Your task to perform on an android device: Empty the shopping cart on amazon. Search for "asus rog" on amazon, select the first entry, and add it to the cart. Image 0: 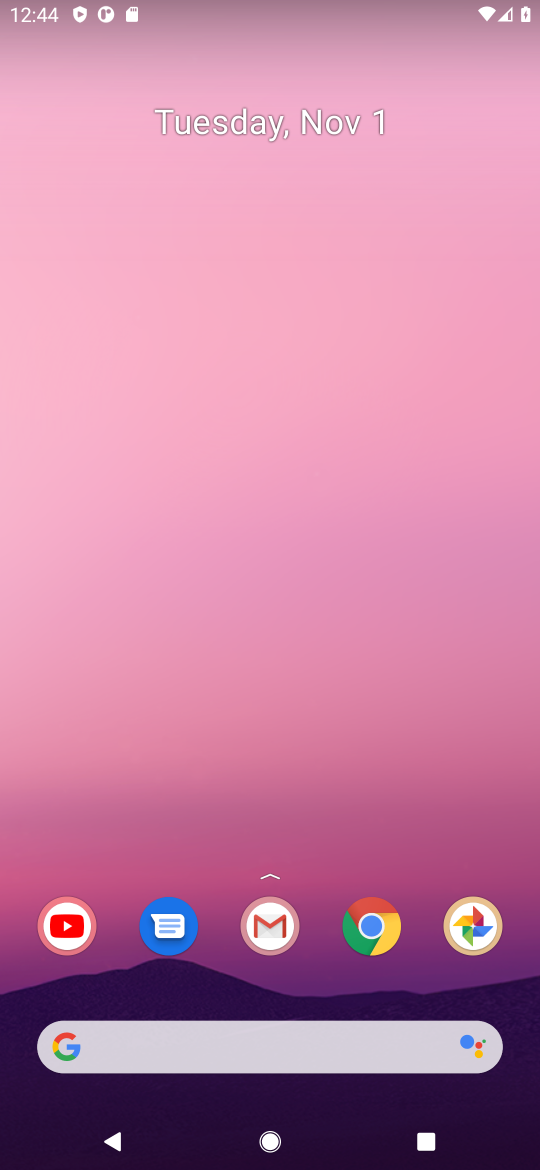
Step 0: click (380, 940)
Your task to perform on an android device: Empty the shopping cart on amazon. Search for "asus rog" on amazon, select the first entry, and add it to the cart. Image 1: 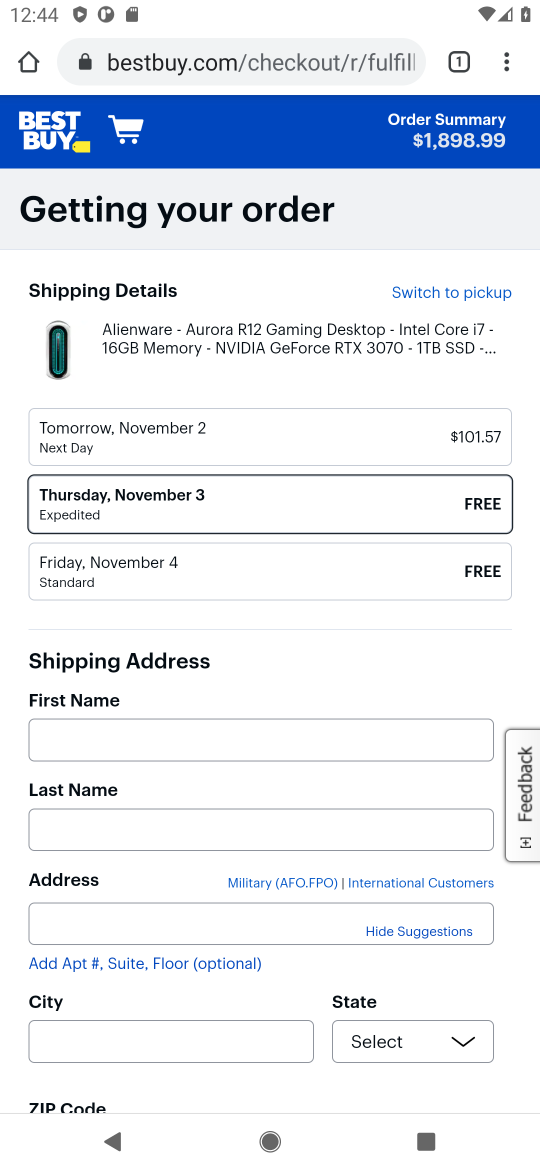
Step 1: click (172, 68)
Your task to perform on an android device: Empty the shopping cart on amazon. Search for "asus rog" on amazon, select the first entry, and add it to the cart. Image 2: 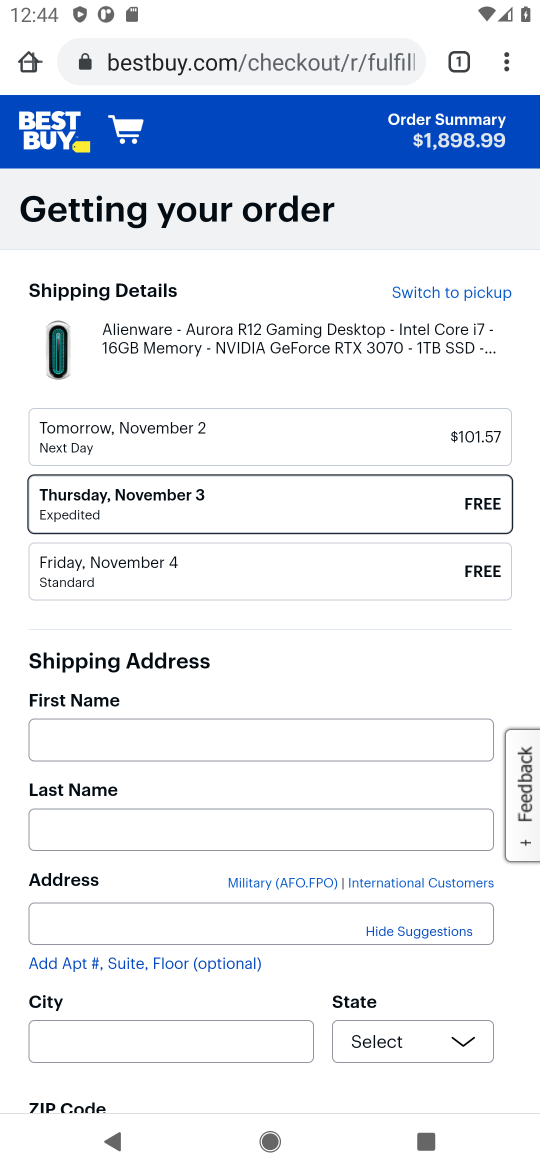
Step 2: click (162, 38)
Your task to perform on an android device: Empty the shopping cart on amazon. Search for "asus rog" on amazon, select the first entry, and add it to the cart. Image 3: 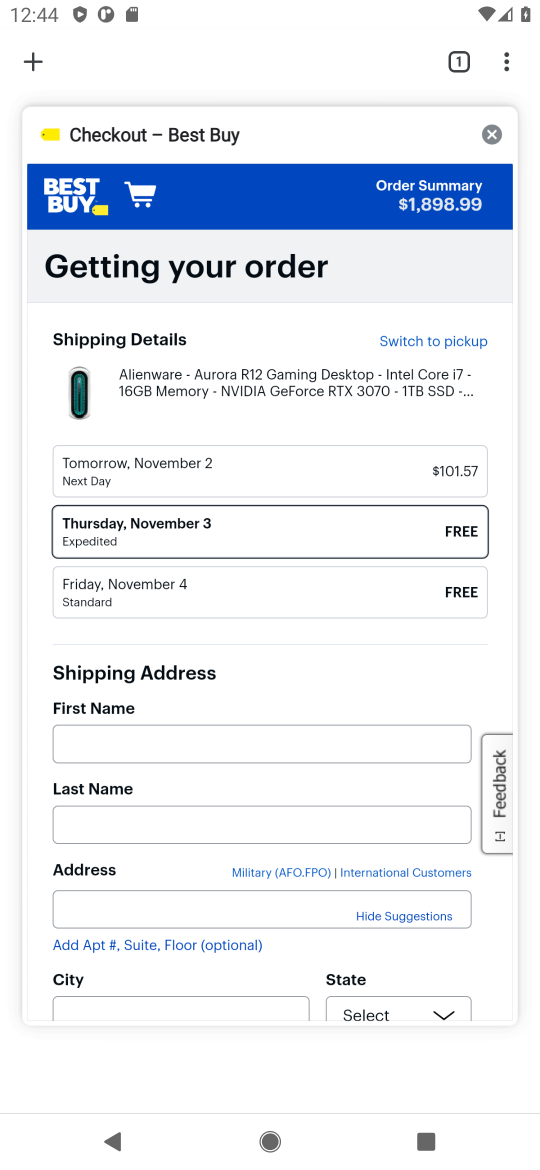
Step 3: click (149, 107)
Your task to perform on an android device: Empty the shopping cart on amazon. Search for "asus rog" on amazon, select the first entry, and add it to the cart. Image 4: 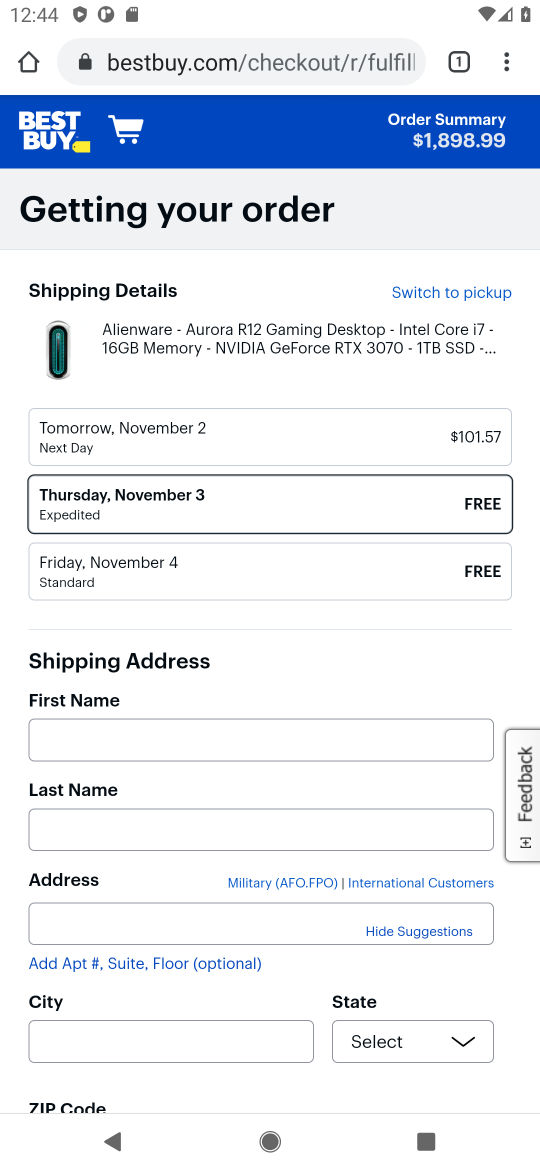
Step 4: click (147, 80)
Your task to perform on an android device: Empty the shopping cart on amazon. Search for "asus rog" on amazon, select the first entry, and add it to the cart. Image 5: 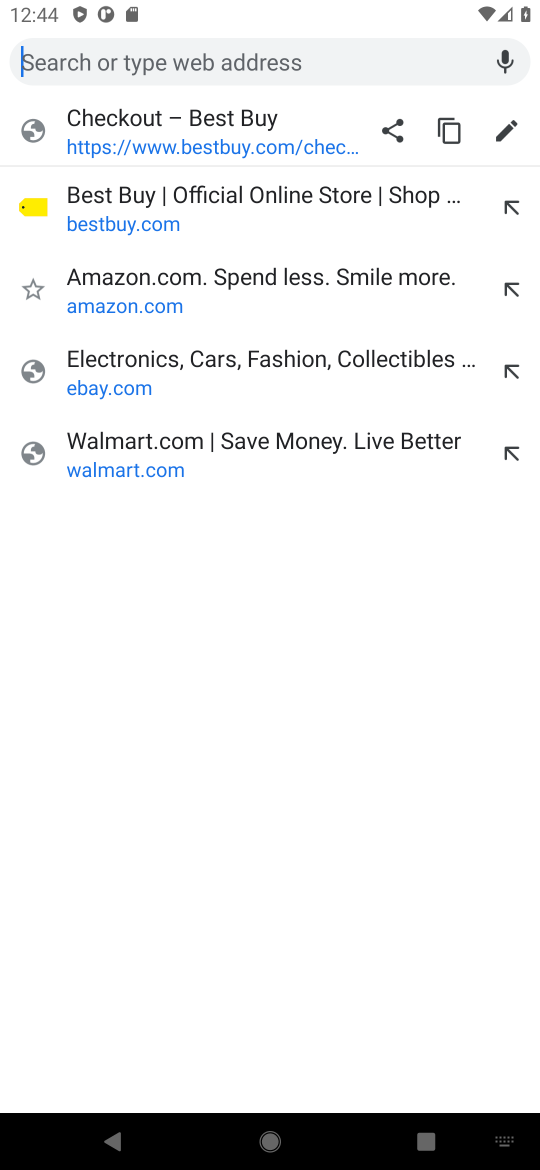
Step 5: type "amazon"
Your task to perform on an android device: Empty the shopping cart on amazon. Search for "asus rog" on amazon, select the first entry, and add it to the cart. Image 6: 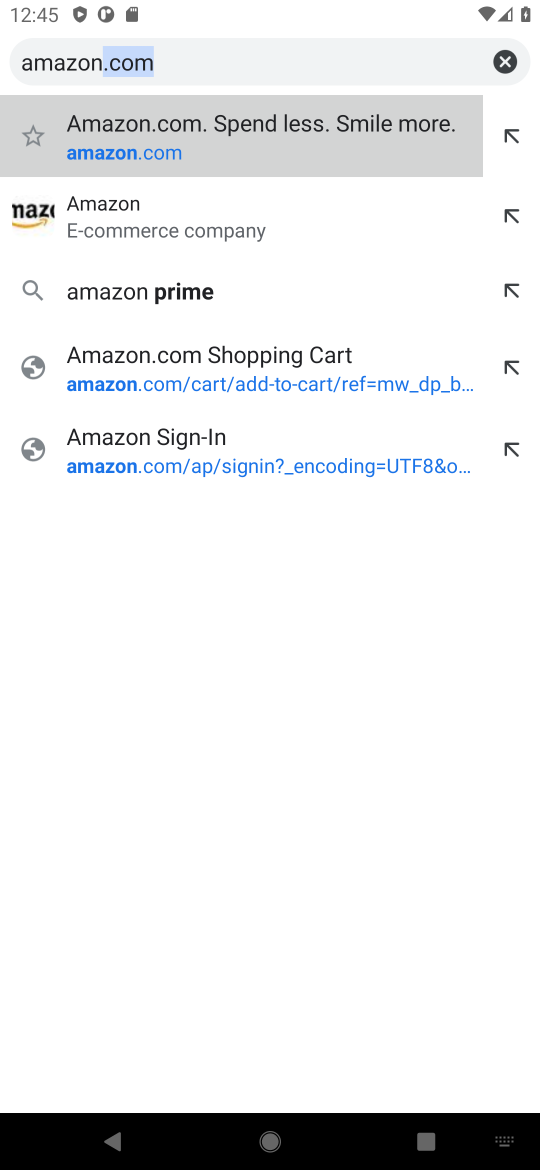
Step 6: type ""
Your task to perform on an android device: Empty the shopping cart on amazon. Search for "asus rog" on amazon, select the first entry, and add it to the cart. Image 7: 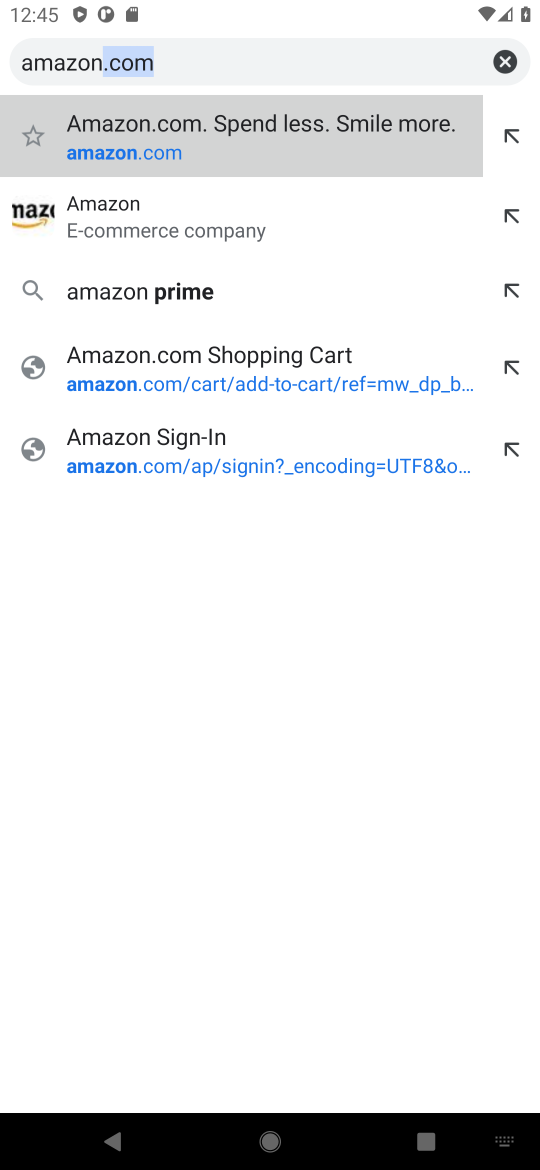
Step 7: click (145, 218)
Your task to perform on an android device: Empty the shopping cart on amazon. Search for "asus rog" on amazon, select the first entry, and add it to the cart. Image 8: 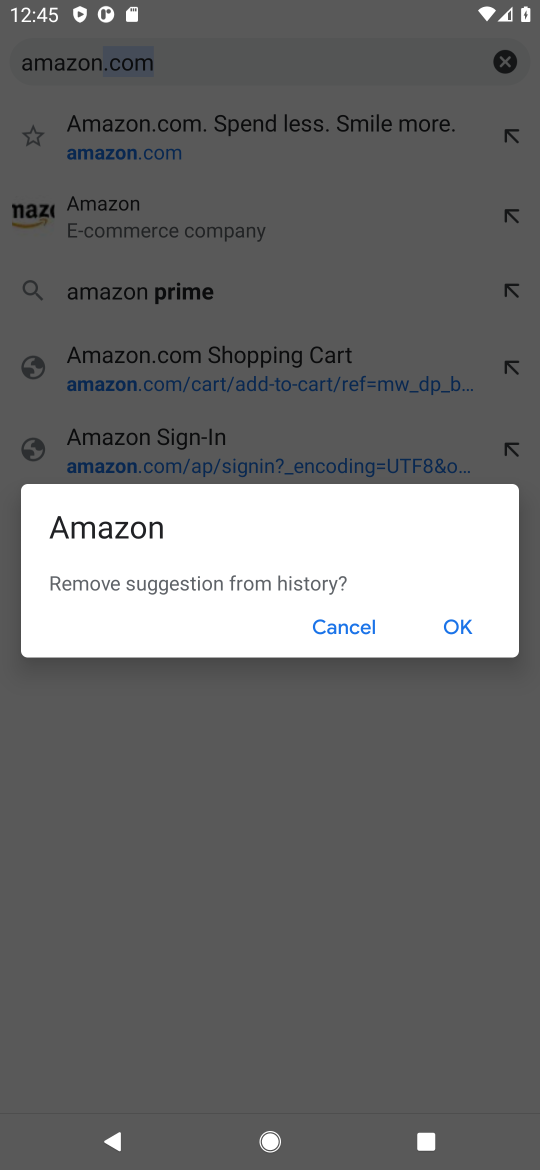
Step 8: click (468, 608)
Your task to perform on an android device: Empty the shopping cart on amazon. Search for "asus rog" on amazon, select the first entry, and add it to the cart. Image 9: 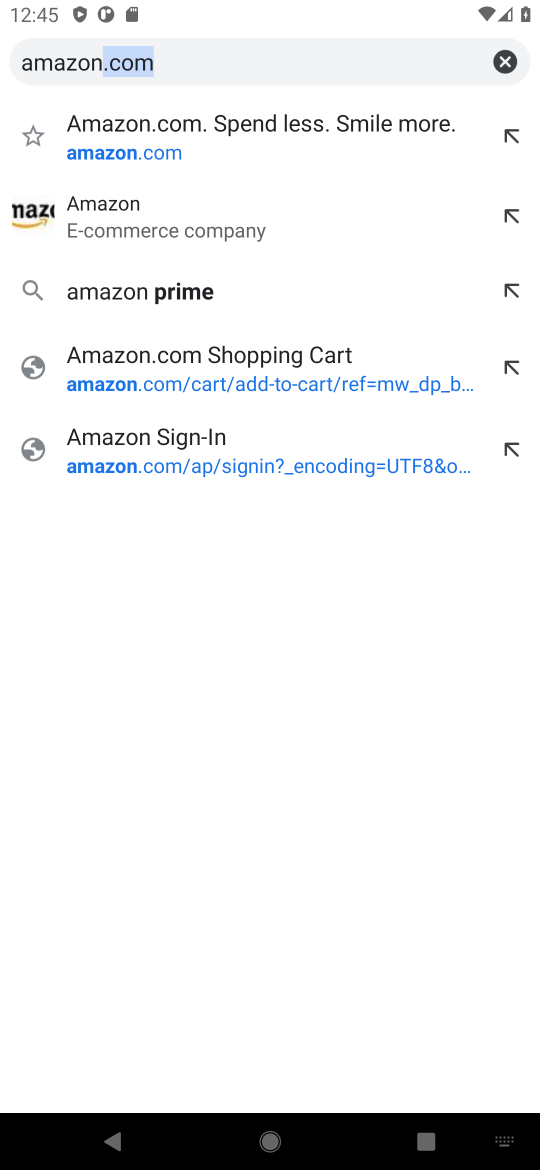
Step 9: press enter
Your task to perform on an android device: Empty the shopping cart on amazon. Search for "asus rog" on amazon, select the first entry, and add it to the cart. Image 10: 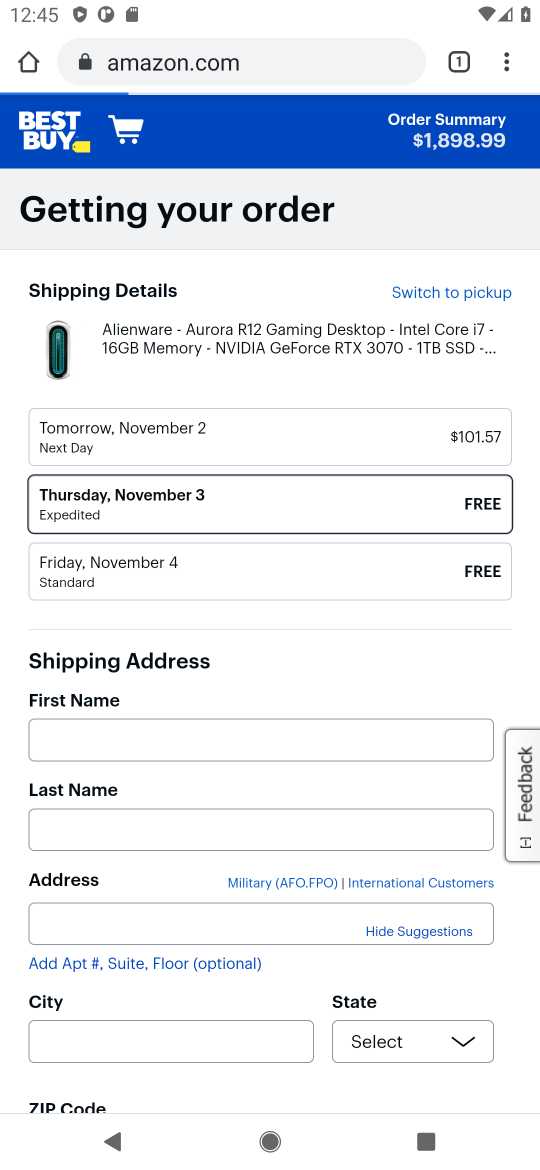
Step 10: click (404, 132)
Your task to perform on an android device: Empty the shopping cart on amazon. Search for "asus rog" on amazon, select the first entry, and add it to the cart. Image 11: 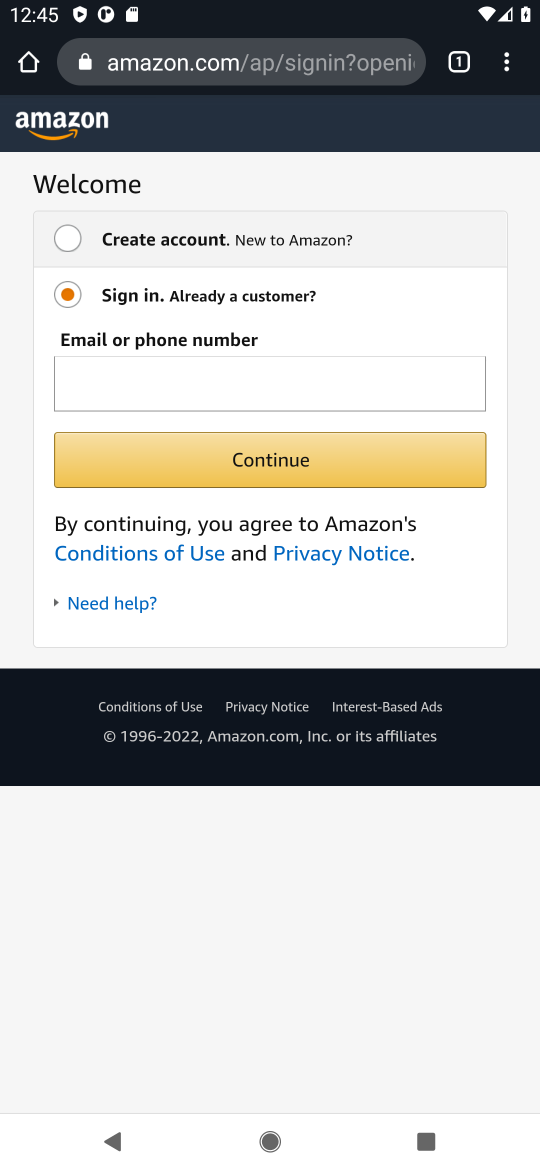
Step 11: press back button
Your task to perform on an android device: Empty the shopping cart on amazon. Search for "asus rog" on amazon, select the first entry, and add it to the cart. Image 12: 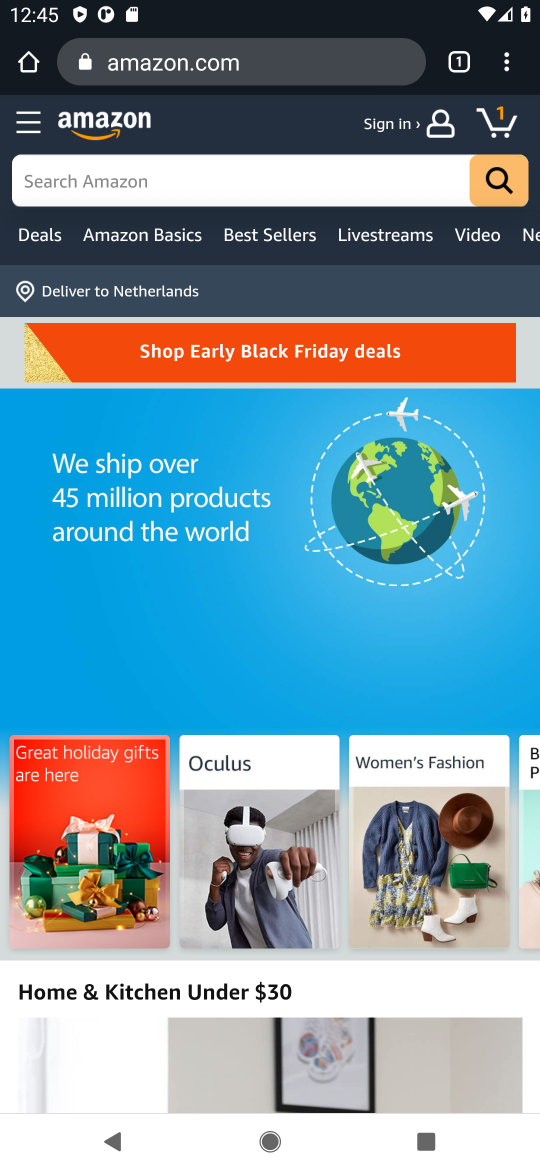
Step 12: click (342, 174)
Your task to perform on an android device: Empty the shopping cart on amazon. Search for "asus rog" on amazon, select the first entry, and add it to the cart. Image 13: 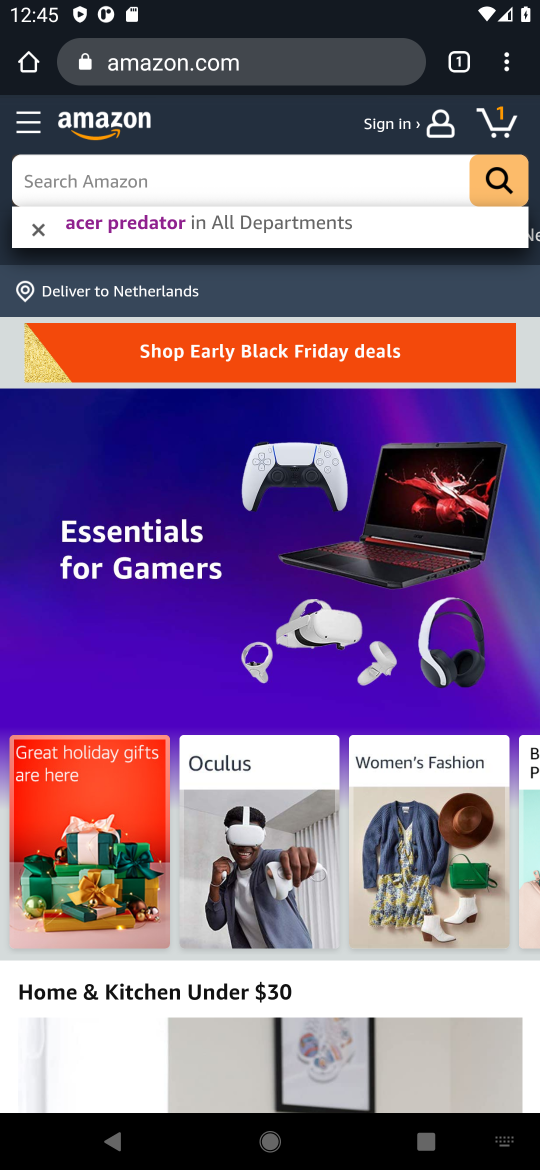
Step 13: type "asus rog"
Your task to perform on an android device: Empty the shopping cart on amazon. Search for "asus rog" on amazon, select the first entry, and add it to the cart. Image 14: 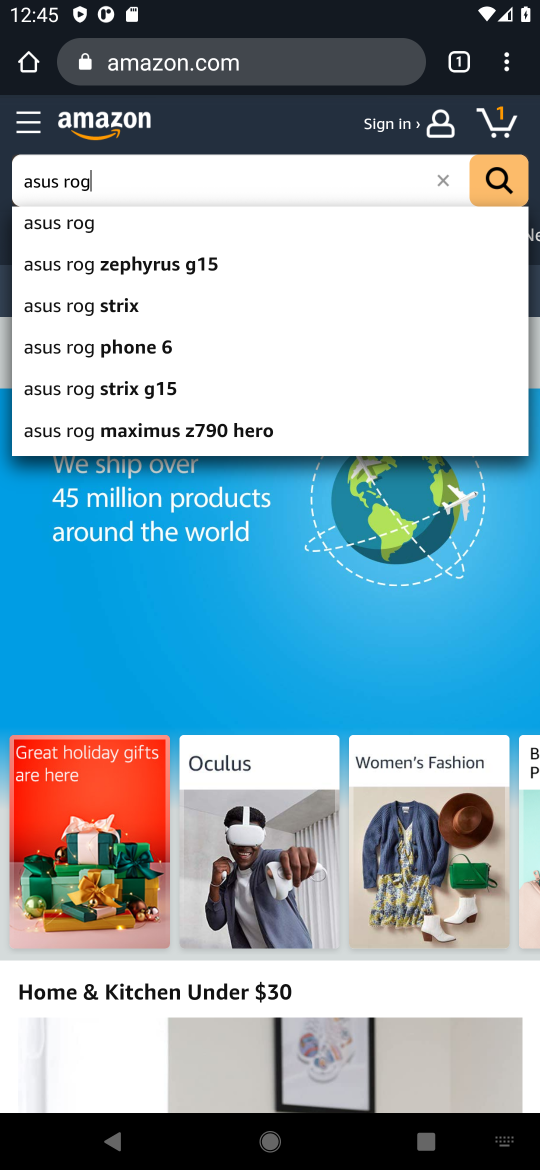
Step 14: click (475, 171)
Your task to perform on an android device: Empty the shopping cart on amazon. Search for "asus rog" on amazon, select the first entry, and add it to the cart. Image 15: 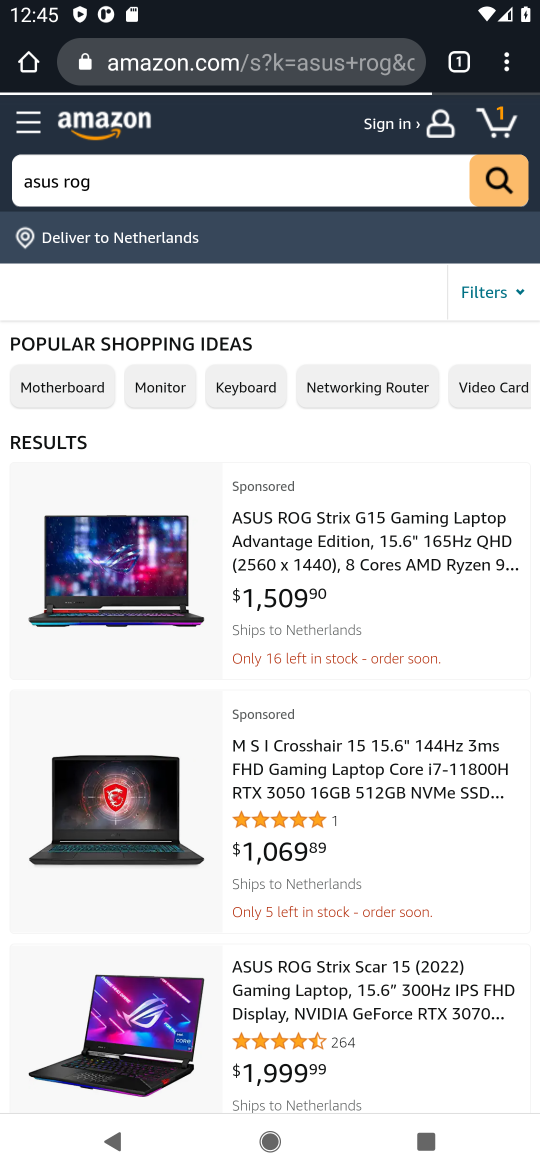
Step 15: click (386, 547)
Your task to perform on an android device: Empty the shopping cart on amazon. Search for "asus rog" on amazon, select the first entry, and add it to the cart. Image 16: 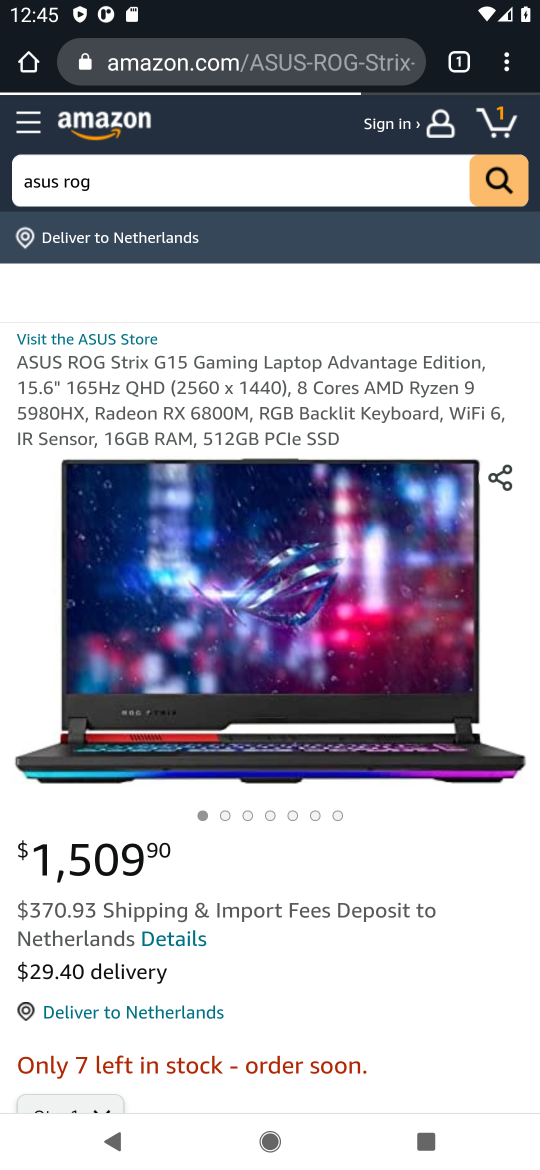
Step 16: drag from (282, 873) to (367, 393)
Your task to perform on an android device: Empty the shopping cart on amazon. Search for "asus rog" on amazon, select the first entry, and add it to the cart. Image 17: 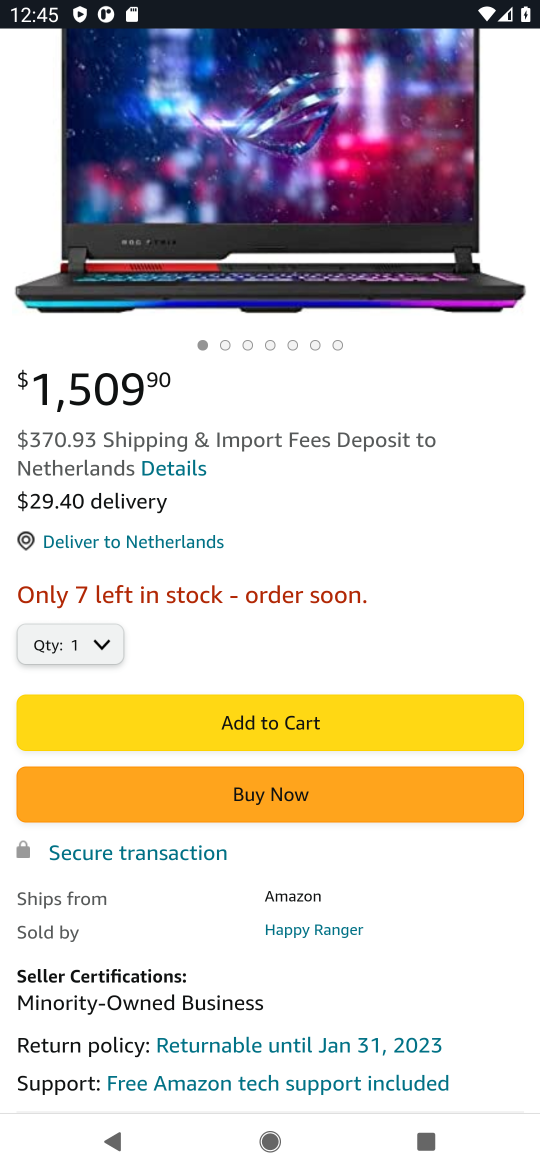
Step 17: click (360, 731)
Your task to perform on an android device: Empty the shopping cart on amazon. Search for "asus rog" on amazon, select the first entry, and add it to the cart. Image 18: 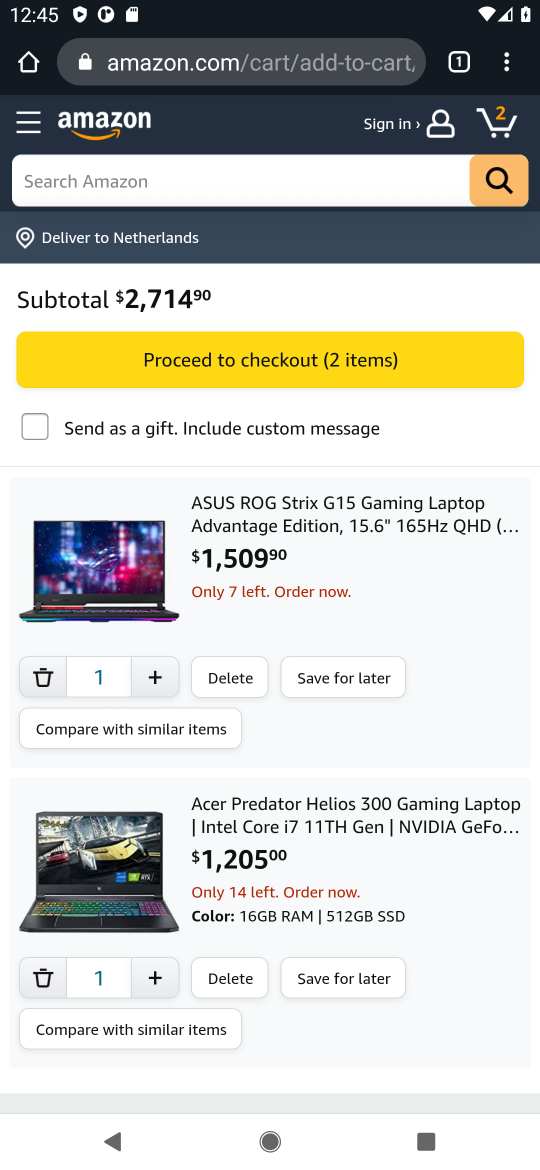
Step 18: click (365, 343)
Your task to perform on an android device: Empty the shopping cart on amazon. Search for "asus rog" on amazon, select the first entry, and add it to the cart. Image 19: 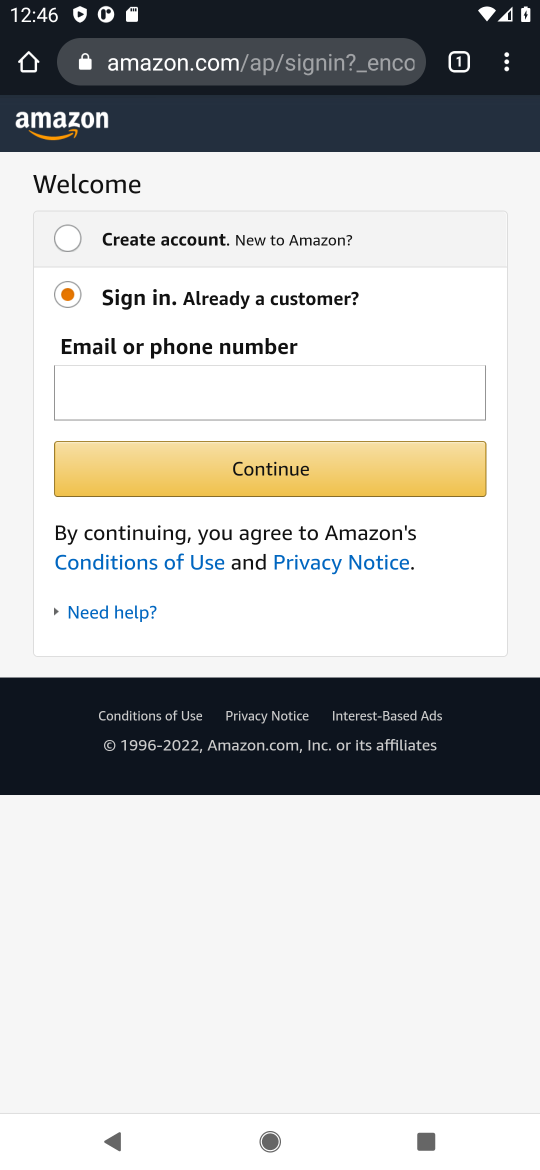
Step 19: press back button
Your task to perform on an android device: Empty the shopping cart on amazon. Search for "asus rog" on amazon, select the first entry, and add it to the cart. Image 20: 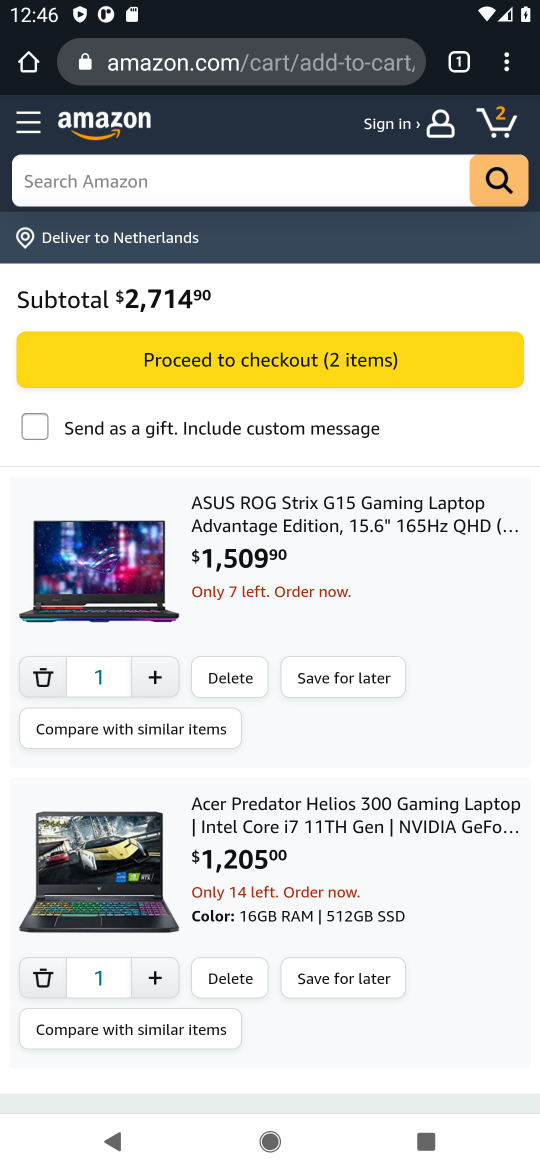
Step 20: click (325, 358)
Your task to perform on an android device: Empty the shopping cart on amazon. Search for "asus rog" on amazon, select the first entry, and add it to the cart. Image 21: 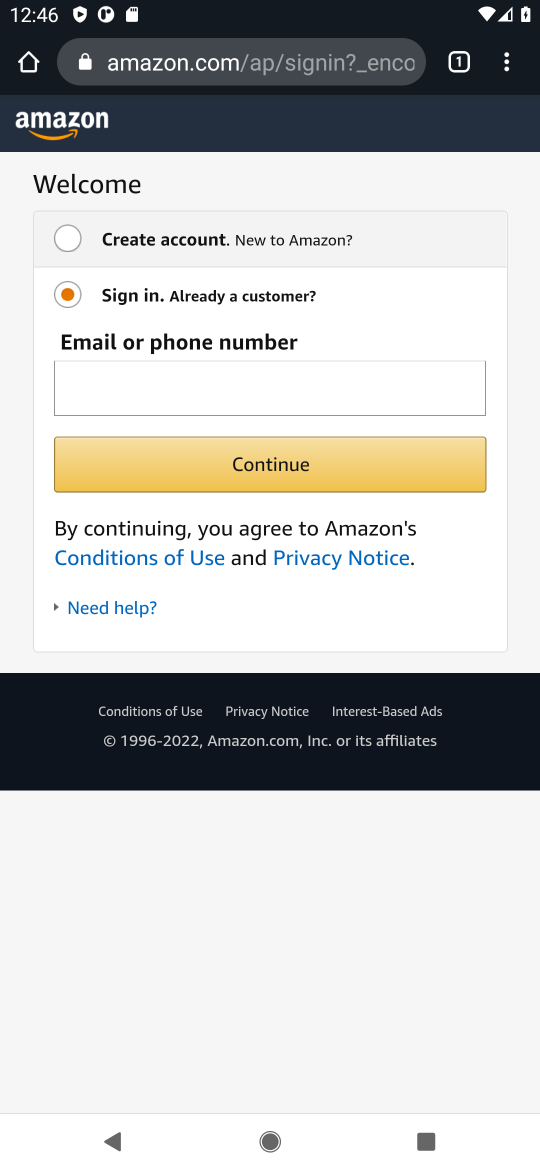
Step 21: task complete